Your task to perform on an android device: delete the emails in spam in the gmail app Image 0: 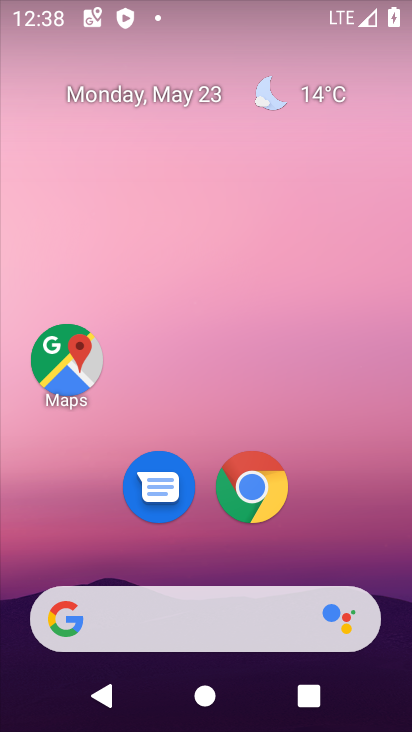
Step 0: drag from (391, 608) to (306, 65)
Your task to perform on an android device: delete the emails in spam in the gmail app Image 1: 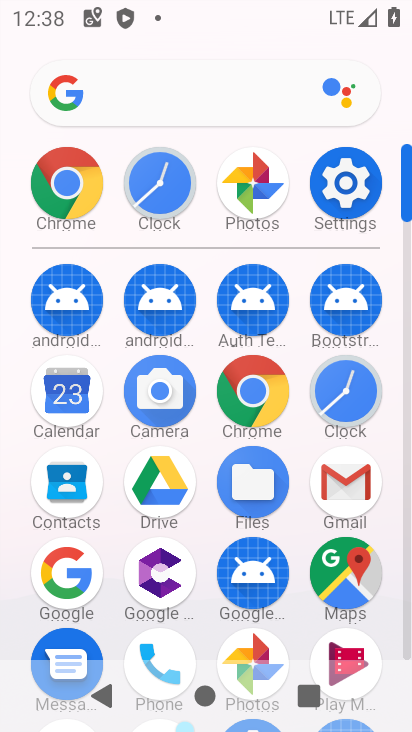
Step 1: click (408, 625)
Your task to perform on an android device: delete the emails in spam in the gmail app Image 2: 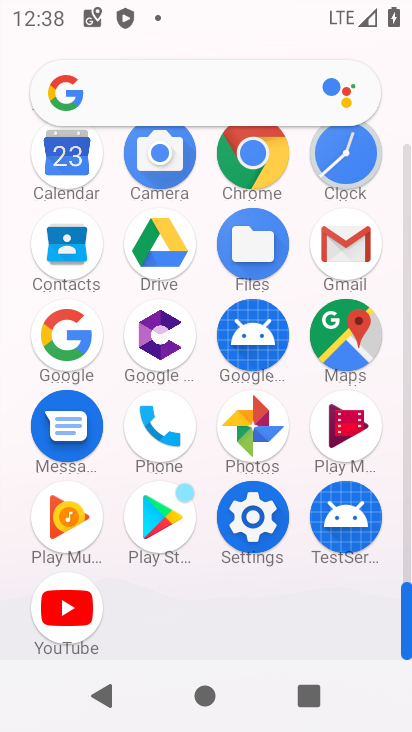
Step 2: click (342, 244)
Your task to perform on an android device: delete the emails in spam in the gmail app Image 3: 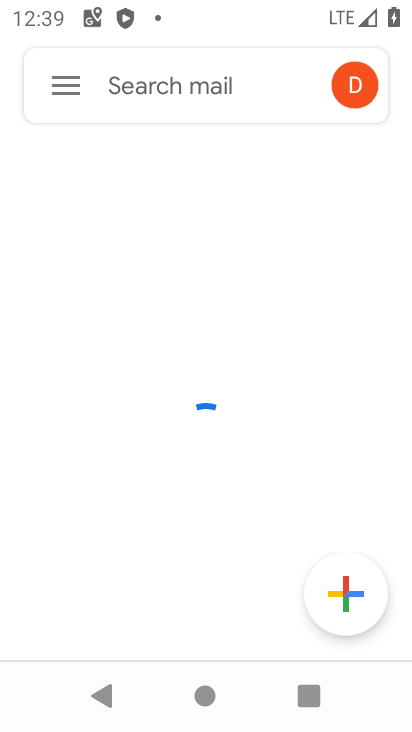
Step 3: click (71, 78)
Your task to perform on an android device: delete the emails in spam in the gmail app Image 4: 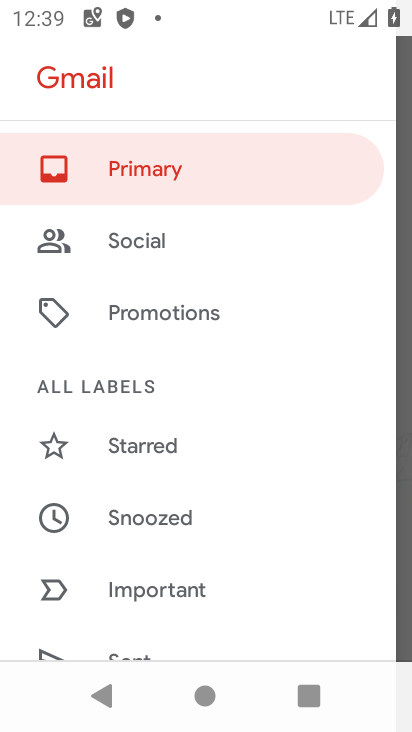
Step 4: drag from (230, 618) to (269, 123)
Your task to perform on an android device: delete the emails in spam in the gmail app Image 5: 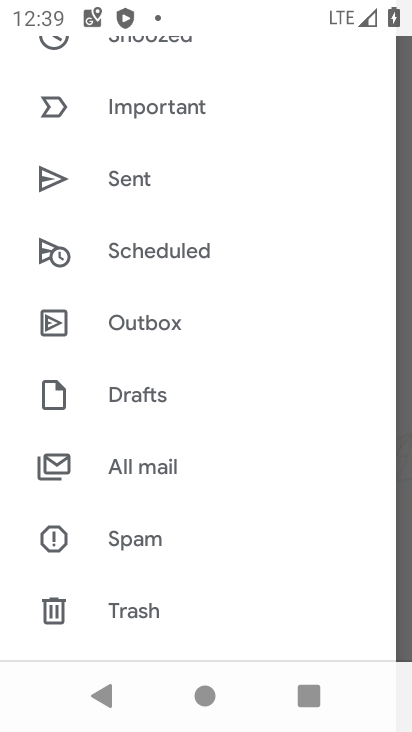
Step 5: drag from (213, 567) to (239, 165)
Your task to perform on an android device: delete the emails in spam in the gmail app Image 6: 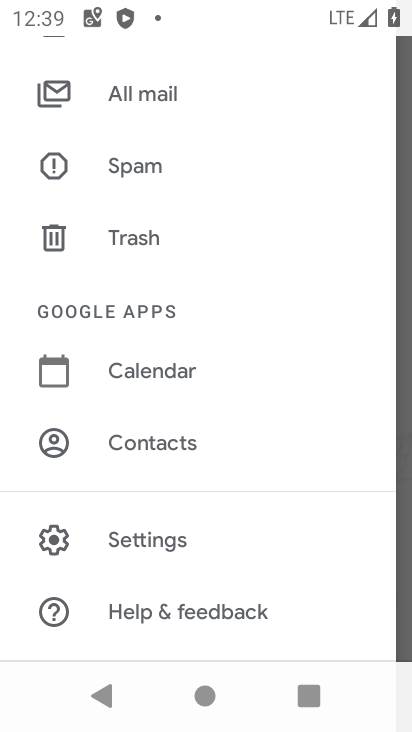
Step 6: click (140, 166)
Your task to perform on an android device: delete the emails in spam in the gmail app Image 7: 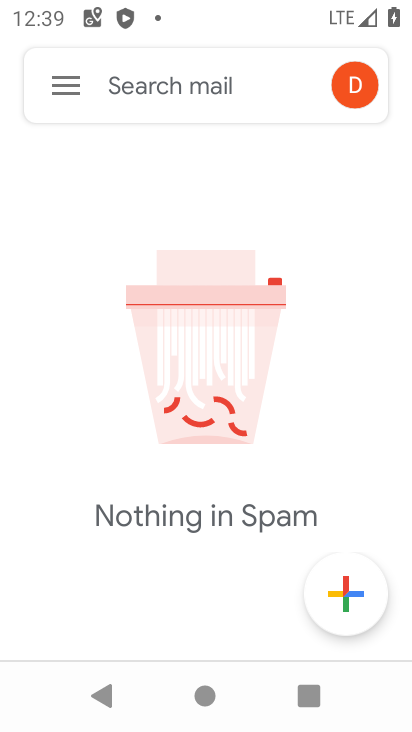
Step 7: task complete